Your task to perform on an android device: Open wifi settings Image 0: 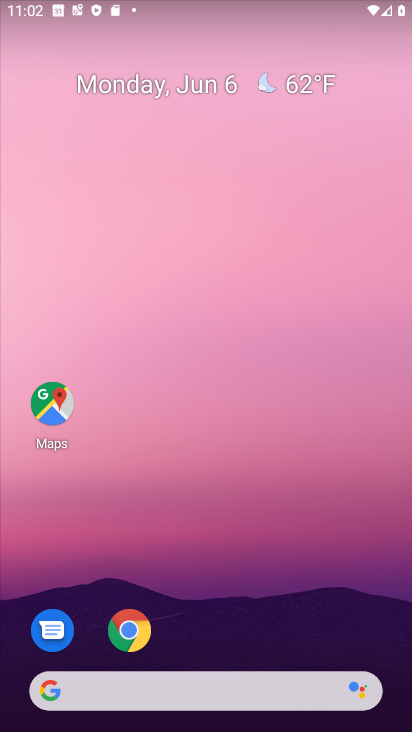
Step 0: drag from (258, 526) to (256, 157)
Your task to perform on an android device: Open wifi settings Image 1: 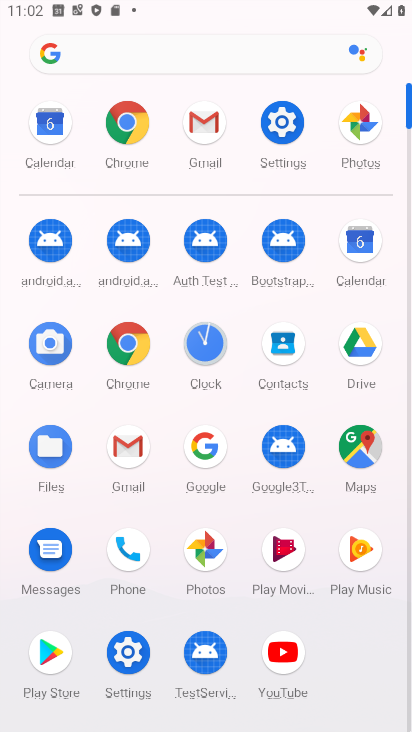
Step 1: click (278, 130)
Your task to perform on an android device: Open wifi settings Image 2: 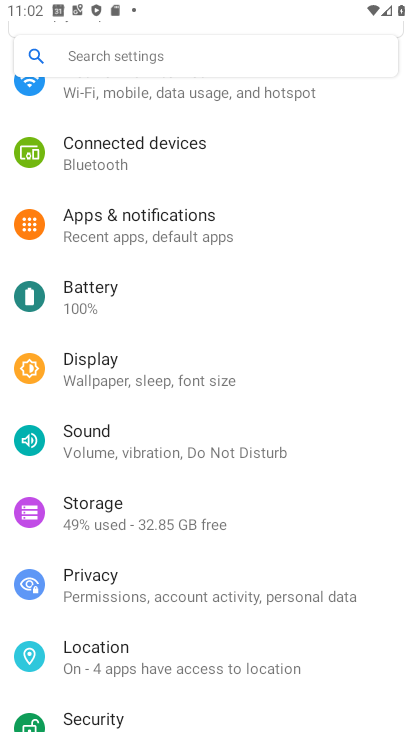
Step 2: drag from (257, 159) to (256, 451)
Your task to perform on an android device: Open wifi settings Image 3: 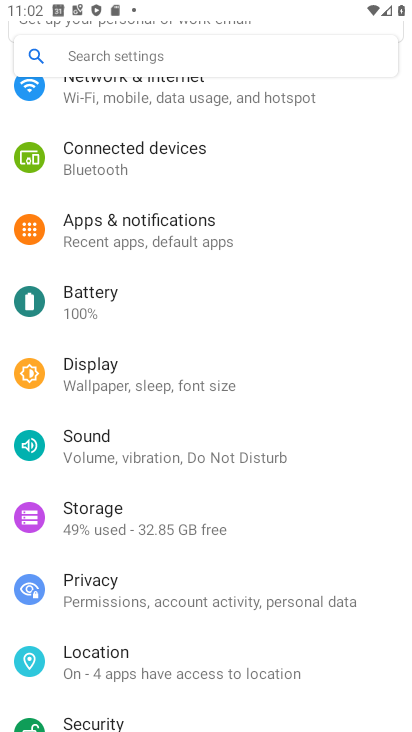
Step 3: drag from (359, 156) to (374, 414)
Your task to perform on an android device: Open wifi settings Image 4: 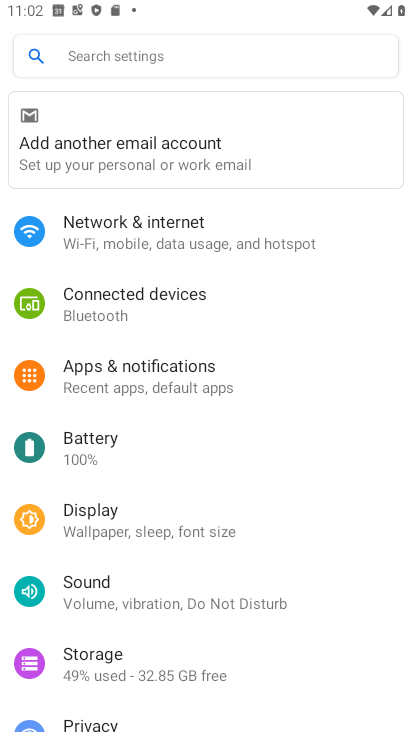
Step 4: click (178, 230)
Your task to perform on an android device: Open wifi settings Image 5: 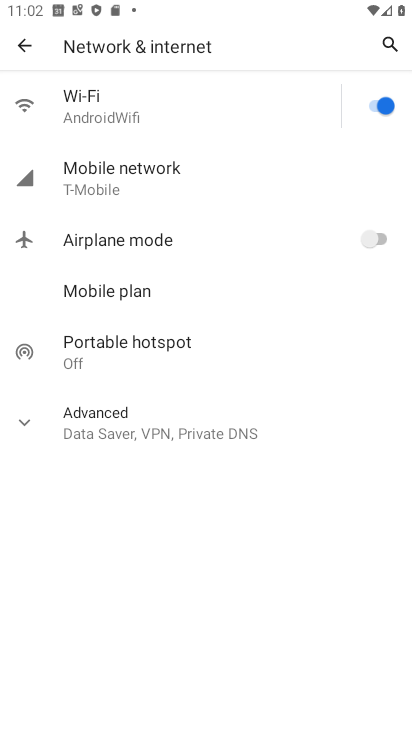
Step 5: click (203, 97)
Your task to perform on an android device: Open wifi settings Image 6: 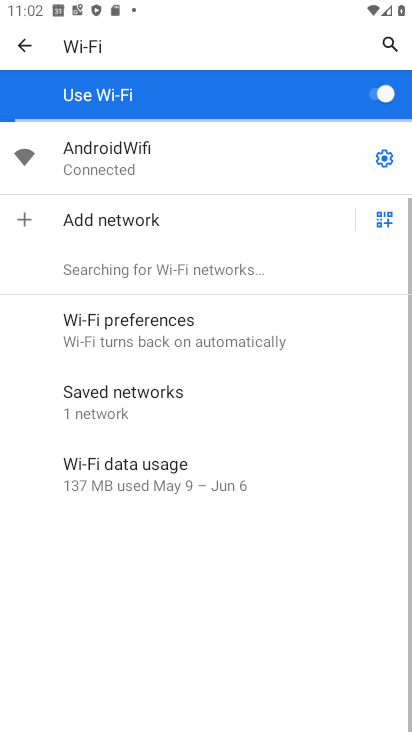
Step 6: click (389, 151)
Your task to perform on an android device: Open wifi settings Image 7: 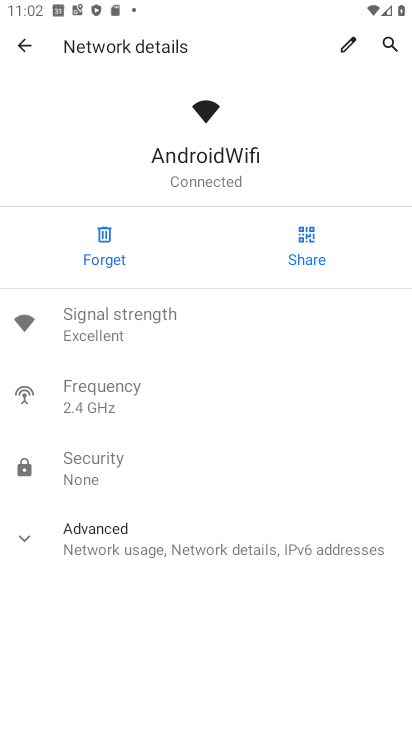
Step 7: task complete